Your task to perform on an android device: What is the news today? Image 0: 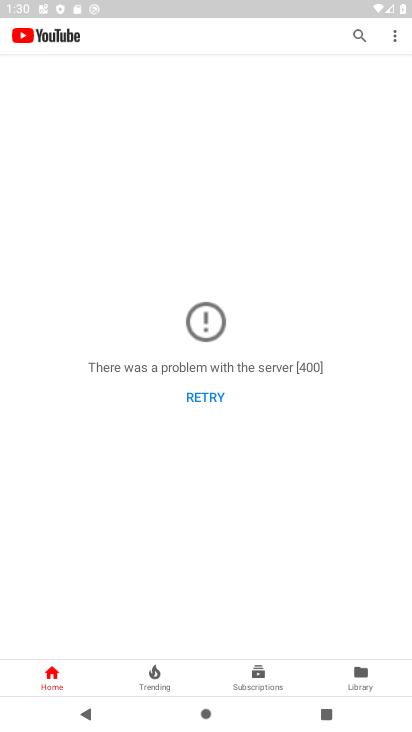
Step 0: press home button
Your task to perform on an android device: What is the news today? Image 1: 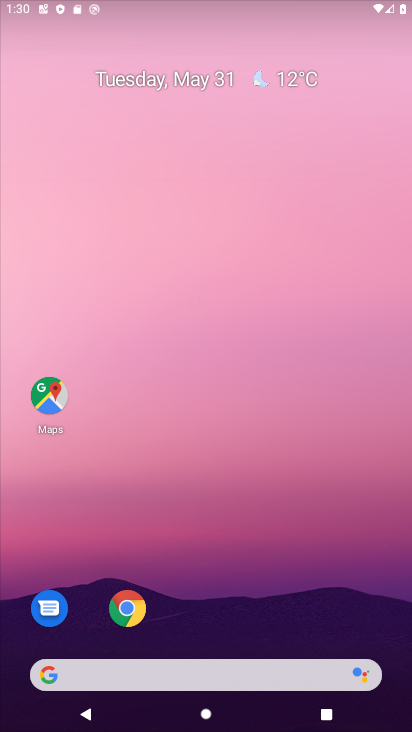
Step 1: drag from (276, 592) to (218, 170)
Your task to perform on an android device: What is the news today? Image 2: 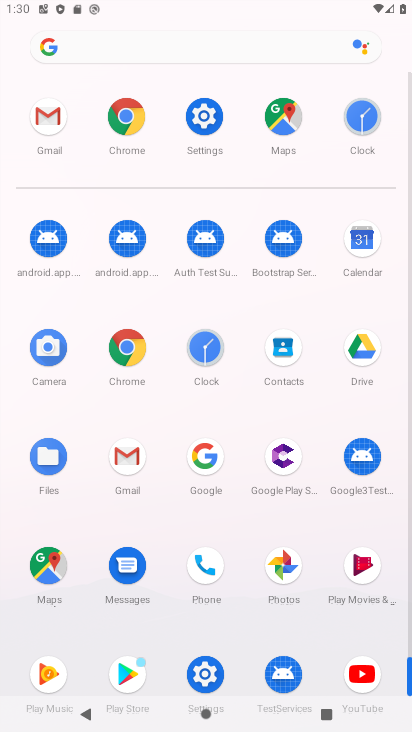
Step 2: click (120, 116)
Your task to perform on an android device: What is the news today? Image 3: 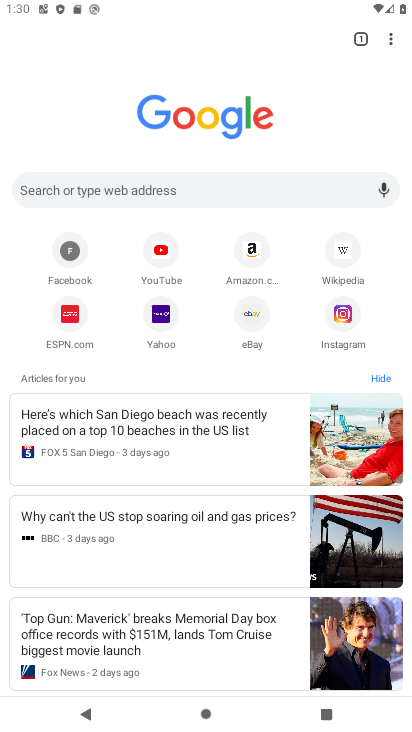
Step 3: click (159, 191)
Your task to perform on an android device: What is the news today? Image 4: 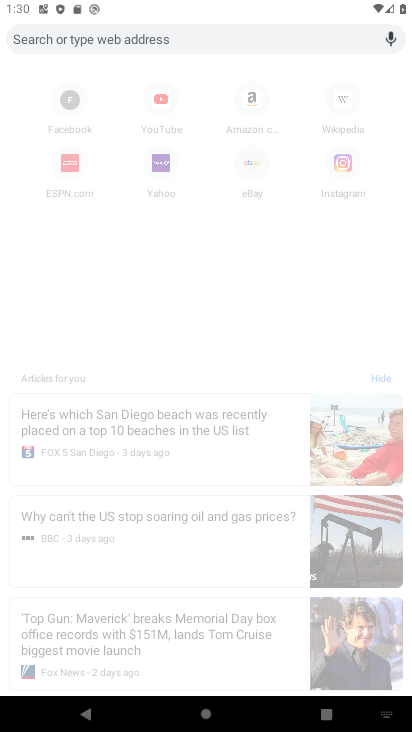
Step 4: type "what is the news today"
Your task to perform on an android device: What is the news today? Image 5: 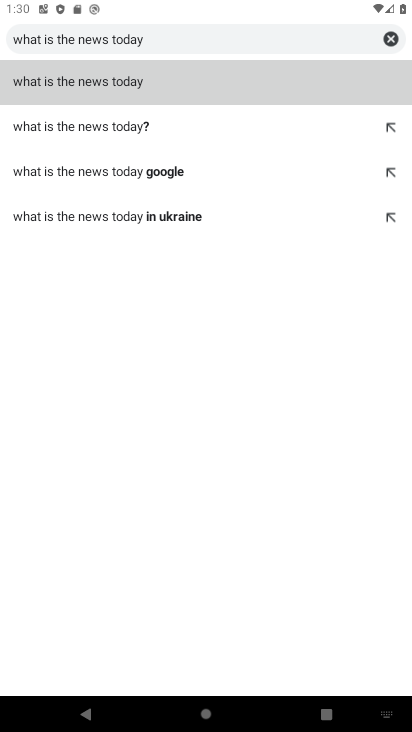
Step 5: click (143, 78)
Your task to perform on an android device: What is the news today? Image 6: 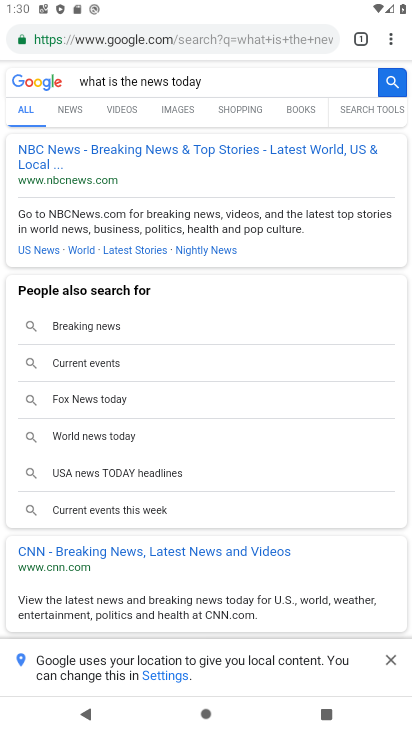
Step 6: click (106, 149)
Your task to perform on an android device: What is the news today? Image 7: 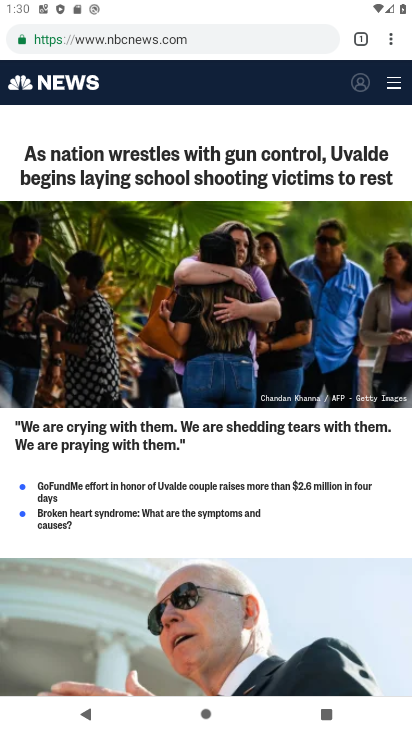
Step 7: task complete